Your task to perform on an android device: delete the emails in spam in the gmail app Image 0: 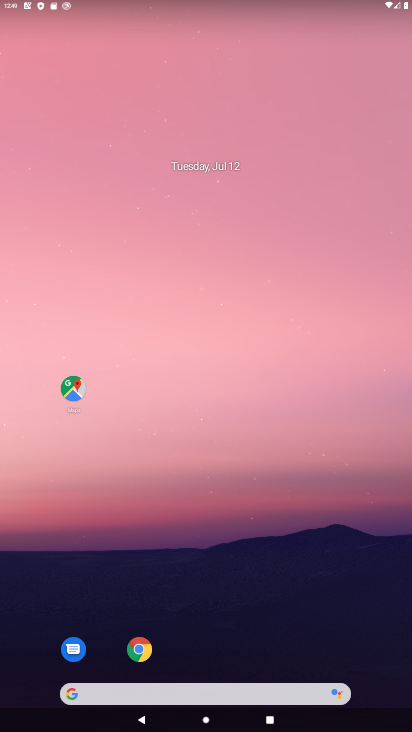
Step 0: drag from (305, 650) to (161, 117)
Your task to perform on an android device: delete the emails in spam in the gmail app Image 1: 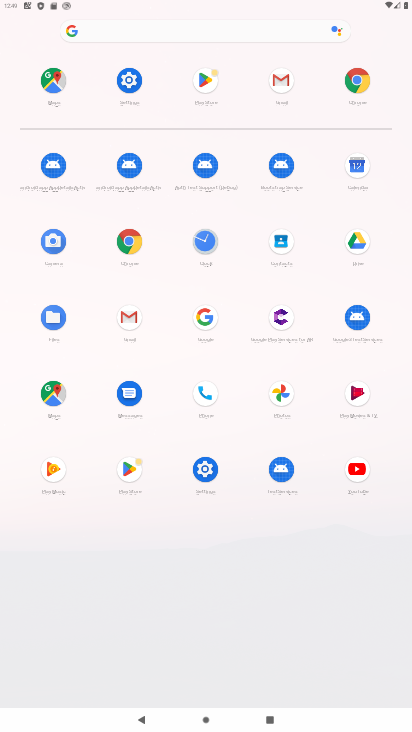
Step 1: click (288, 97)
Your task to perform on an android device: delete the emails in spam in the gmail app Image 2: 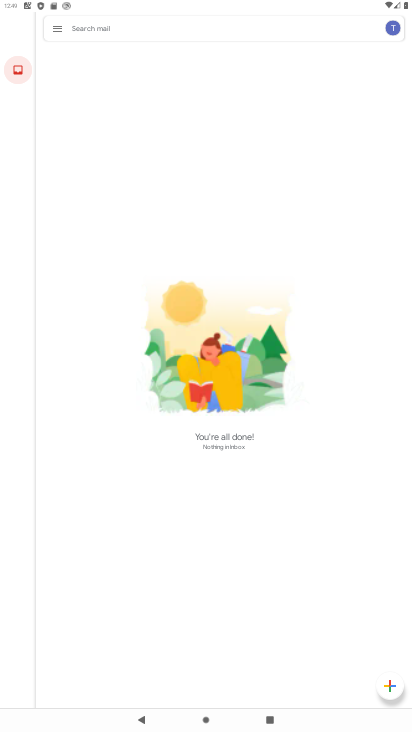
Step 2: click (54, 34)
Your task to perform on an android device: delete the emails in spam in the gmail app Image 3: 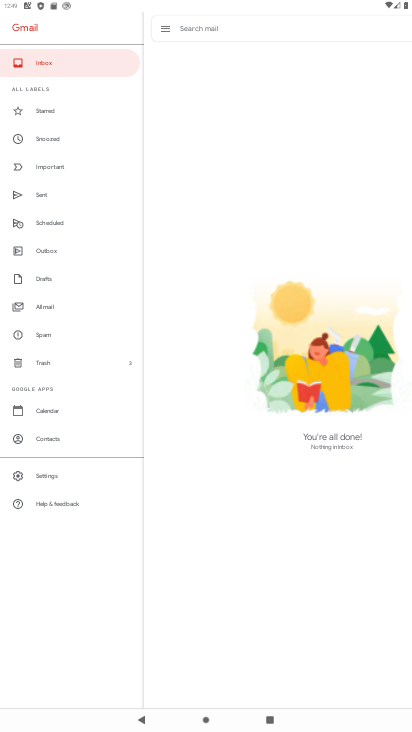
Step 3: click (69, 303)
Your task to perform on an android device: delete the emails in spam in the gmail app Image 4: 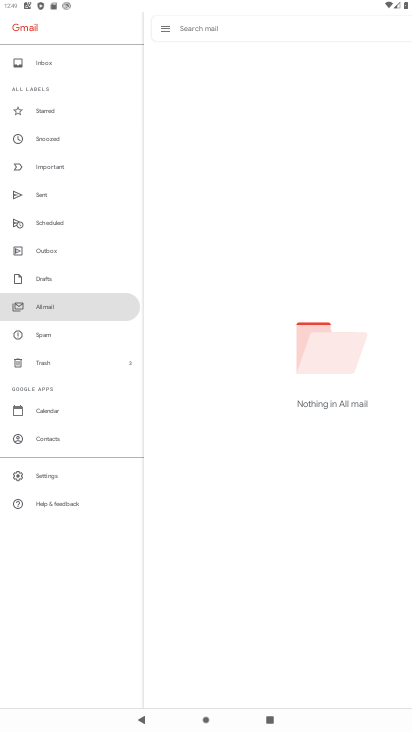
Step 4: task complete